Your task to perform on an android device: open the mobile data screen to see how much data has been used Image 0: 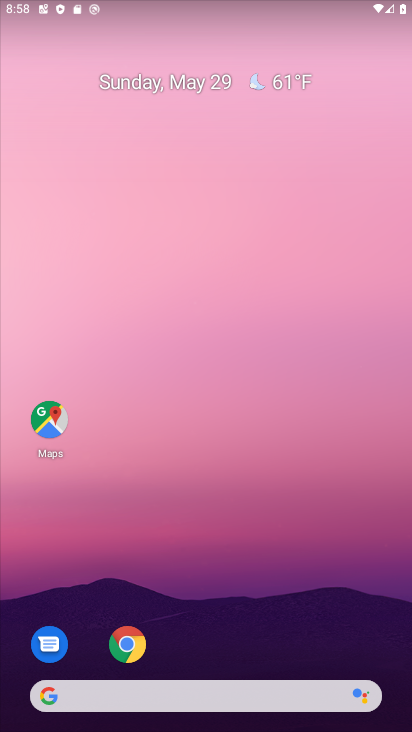
Step 0: drag from (206, 672) to (310, 76)
Your task to perform on an android device: open the mobile data screen to see how much data has been used Image 1: 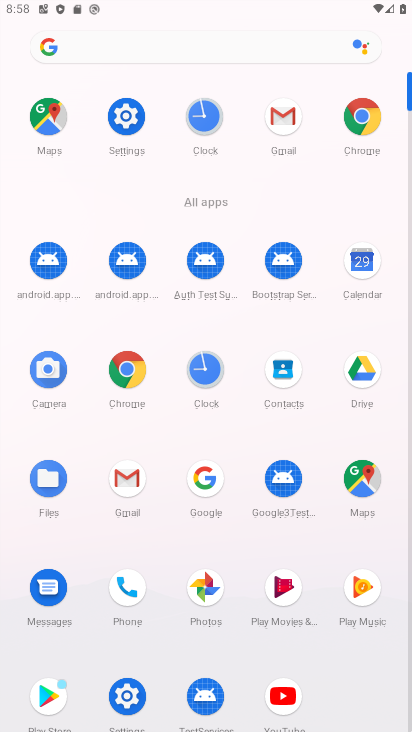
Step 1: click (137, 682)
Your task to perform on an android device: open the mobile data screen to see how much data has been used Image 2: 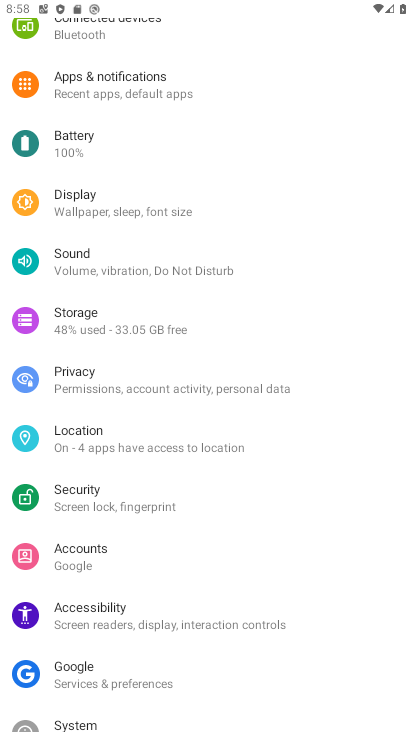
Step 2: drag from (131, 127) to (221, 645)
Your task to perform on an android device: open the mobile data screen to see how much data has been used Image 3: 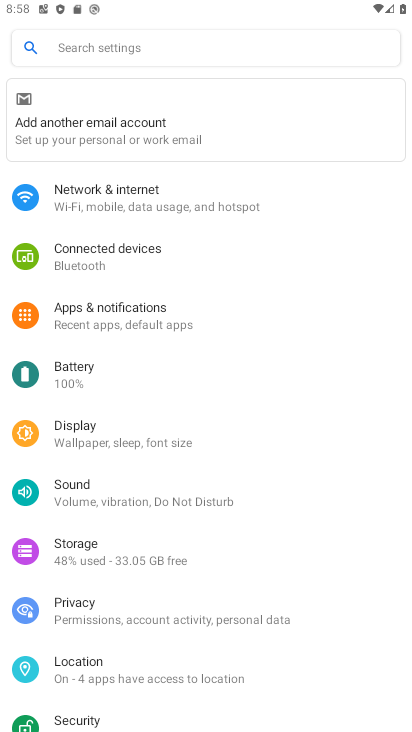
Step 3: click (113, 201)
Your task to perform on an android device: open the mobile data screen to see how much data has been used Image 4: 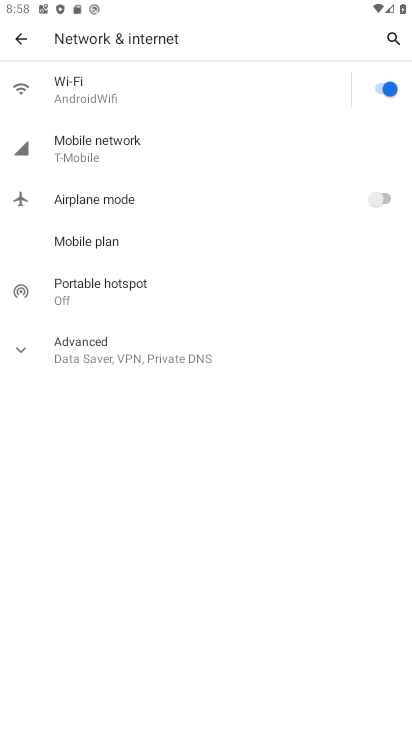
Step 4: click (125, 143)
Your task to perform on an android device: open the mobile data screen to see how much data has been used Image 5: 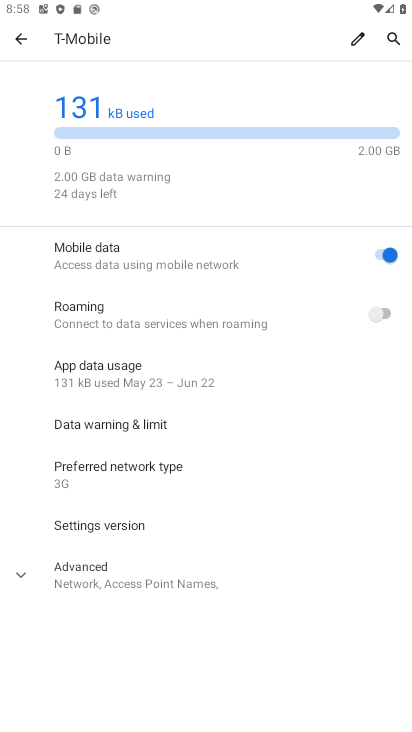
Step 5: task complete